Your task to perform on an android device: Open settings Image 0: 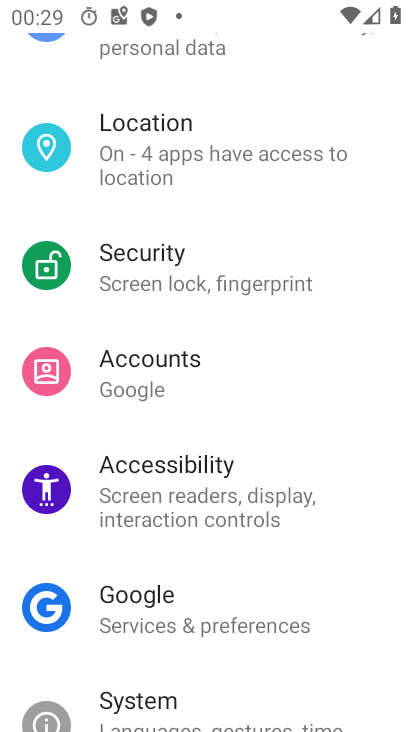
Step 0: press home button
Your task to perform on an android device: Open settings Image 1: 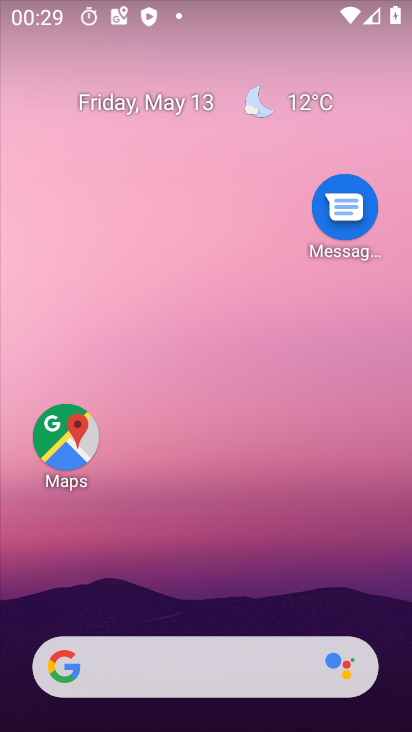
Step 1: drag from (351, 629) to (351, 6)
Your task to perform on an android device: Open settings Image 2: 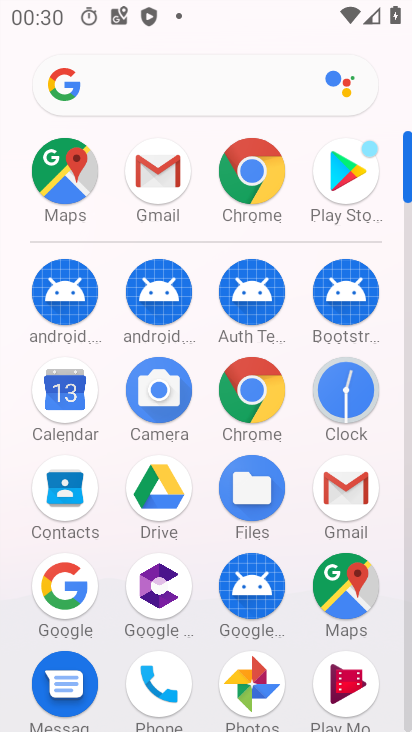
Step 2: click (407, 722)
Your task to perform on an android device: Open settings Image 3: 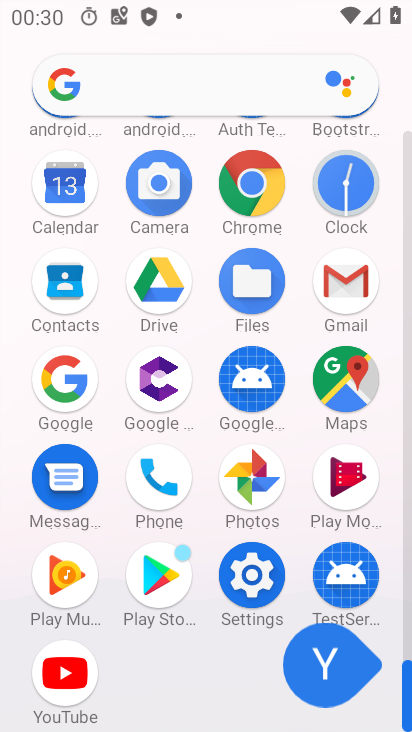
Step 3: click (407, 722)
Your task to perform on an android device: Open settings Image 4: 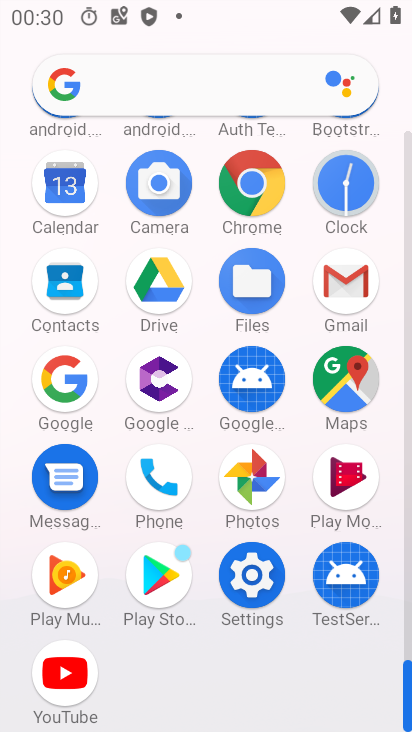
Step 4: click (248, 608)
Your task to perform on an android device: Open settings Image 5: 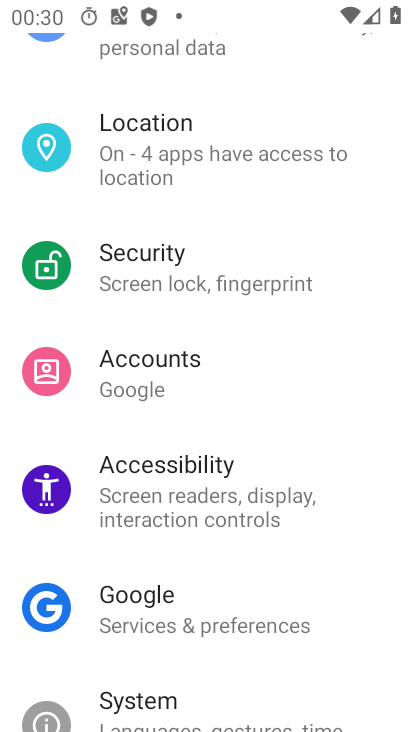
Step 5: task complete